Your task to perform on an android device: Open the map Image 0: 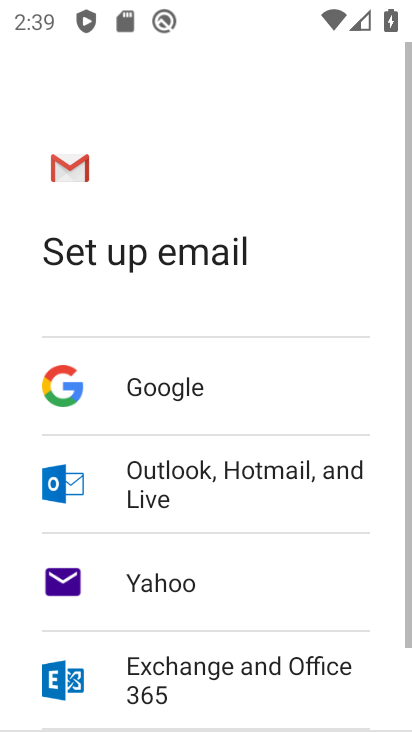
Step 0: press home button
Your task to perform on an android device: Open the map Image 1: 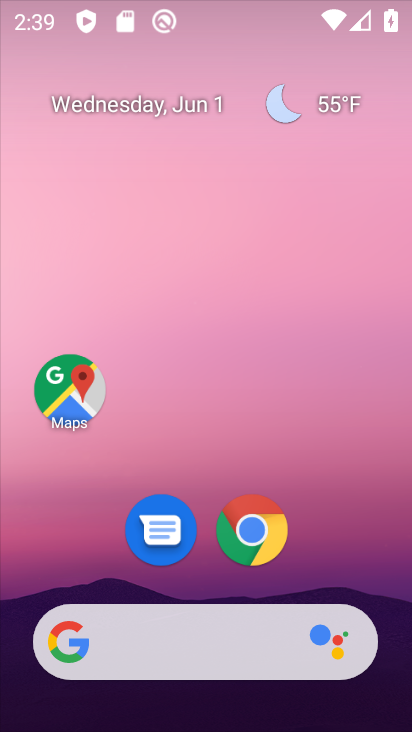
Step 1: press home button
Your task to perform on an android device: Open the map Image 2: 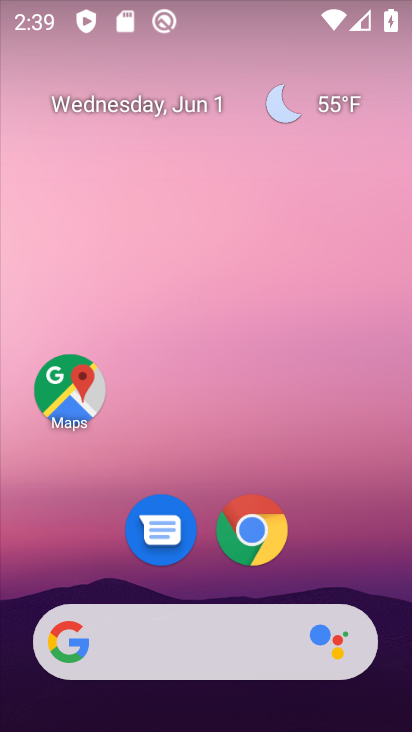
Step 2: click (78, 383)
Your task to perform on an android device: Open the map Image 3: 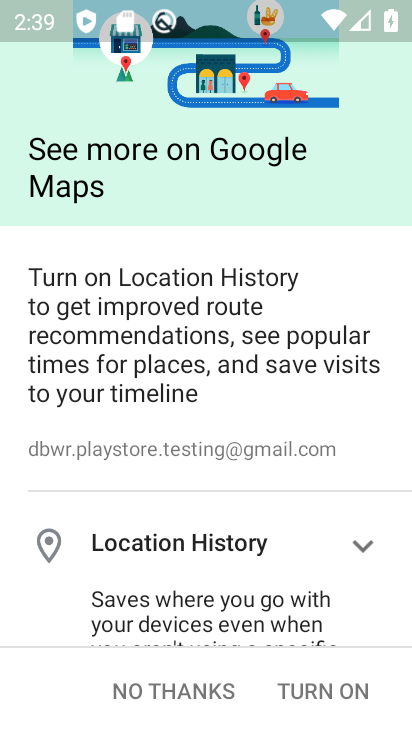
Step 3: click (321, 695)
Your task to perform on an android device: Open the map Image 4: 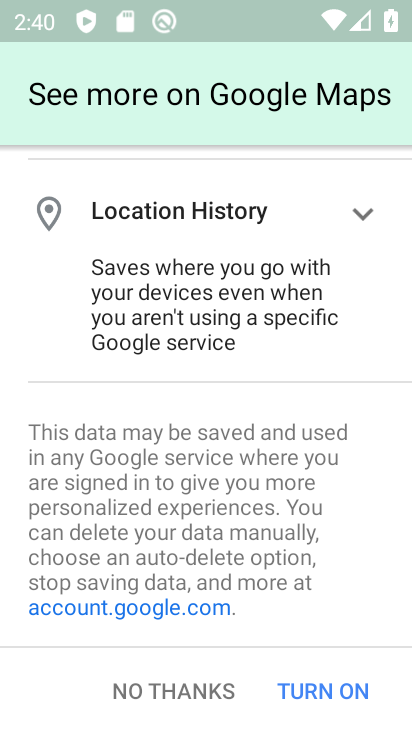
Step 4: click (327, 685)
Your task to perform on an android device: Open the map Image 5: 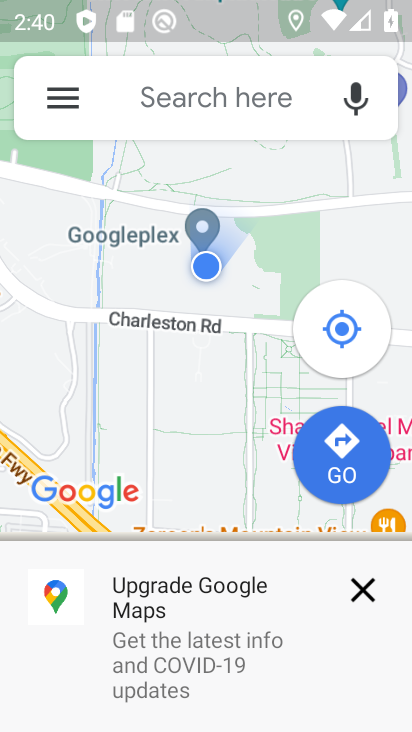
Step 5: task complete